Your task to perform on an android device: toggle translation in the chrome app Image 0: 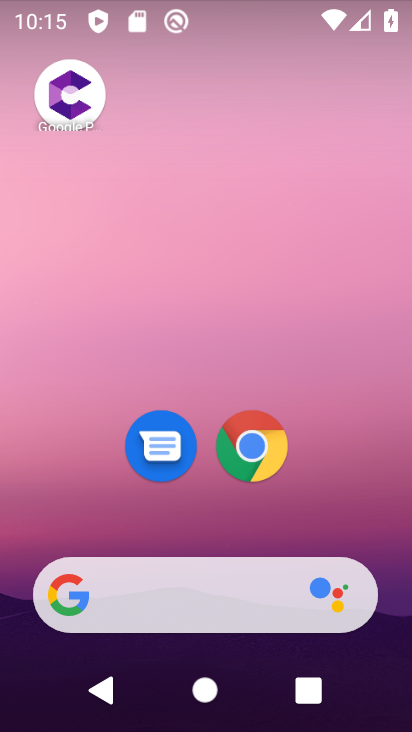
Step 0: click (248, 428)
Your task to perform on an android device: toggle translation in the chrome app Image 1: 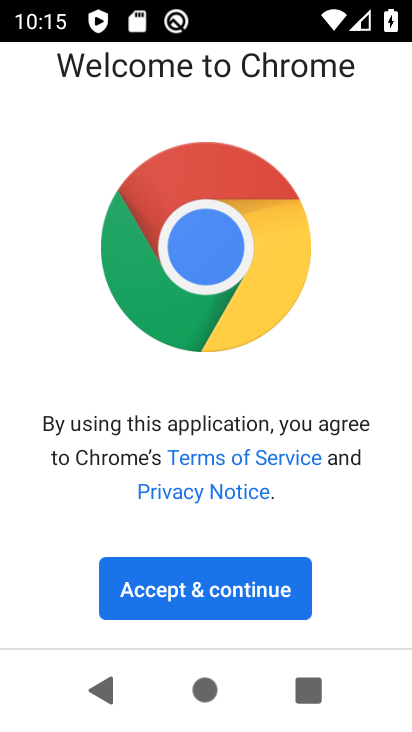
Step 1: click (241, 596)
Your task to perform on an android device: toggle translation in the chrome app Image 2: 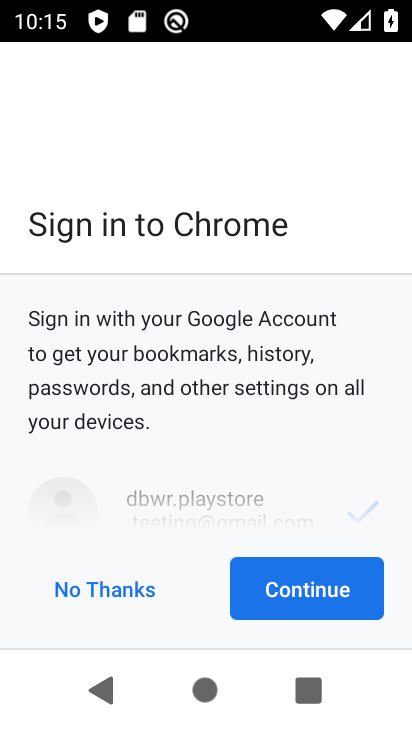
Step 2: click (368, 575)
Your task to perform on an android device: toggle translation in the chrome app Image 3: 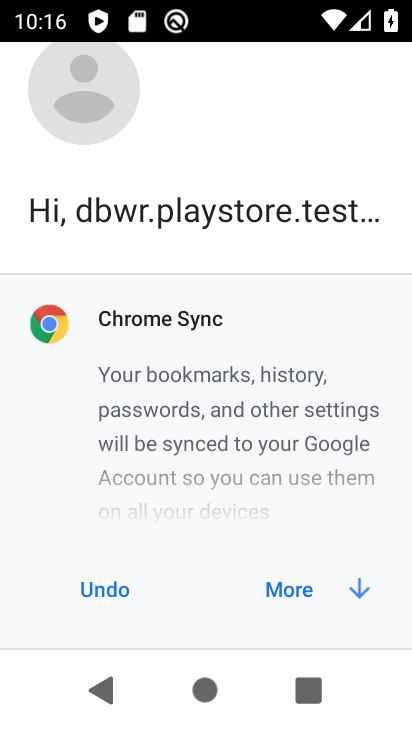
Step 3: click (305, 600)
Your task to perform on an android device: toggle translation in the chrome app Image 4: 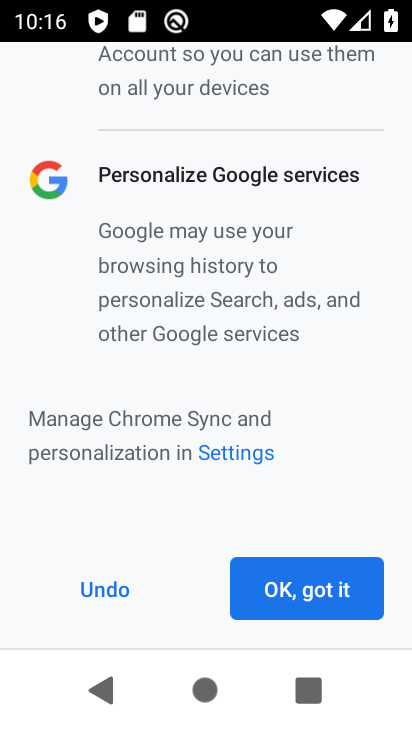
Step 4: click (293, 594)
Your task to perform on an android device: toggle translation in the chrome app Image 5: 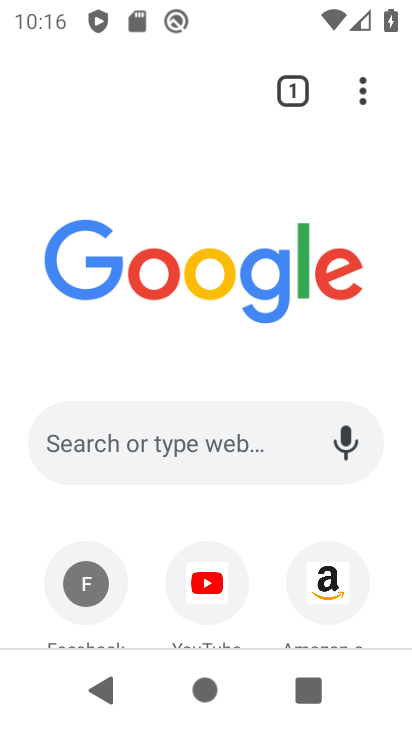
Step 5: click (364, 96)
Your task to perform on an android device: toggle translation in the chrome app Image 6: 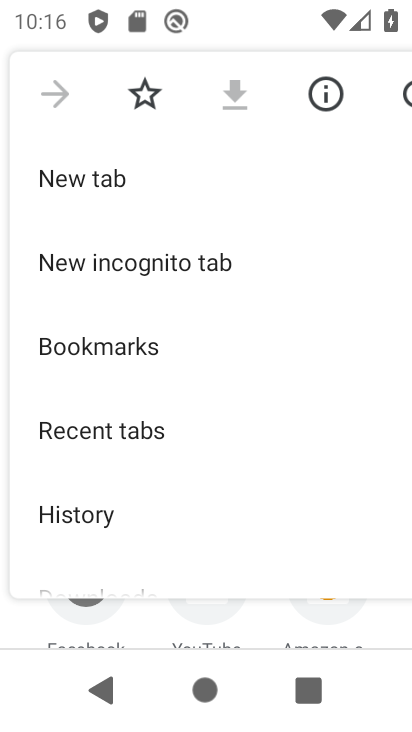
Step 6: drag from (100, 482) to (163, 260)
Your task to perform on an android device: toggle translation in the chrome app Image 7: 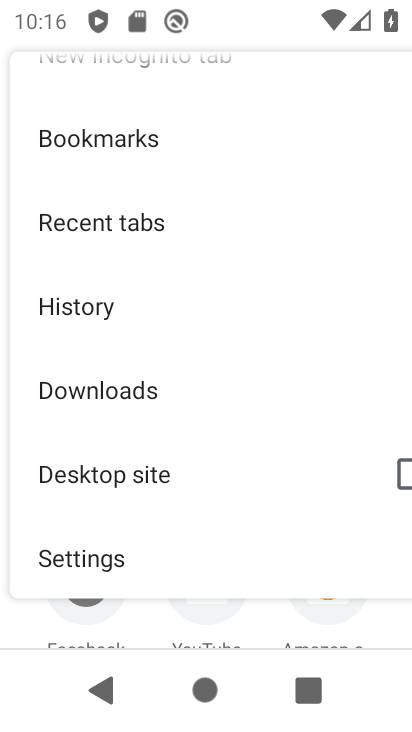
Step 7: drag from (90, 529) to (120, 421)
Your task to perform on an android device: toggle translation in the chrome app Image 8: 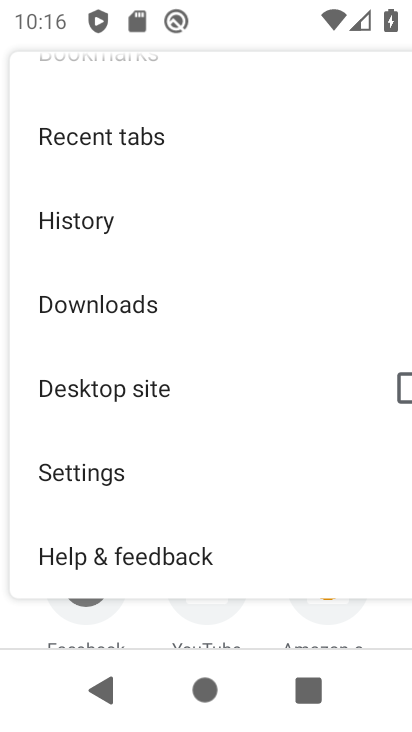
Step 8: click (96, 468)
Your task to perform on an android device: toggle translation in the chrome app Image 9: 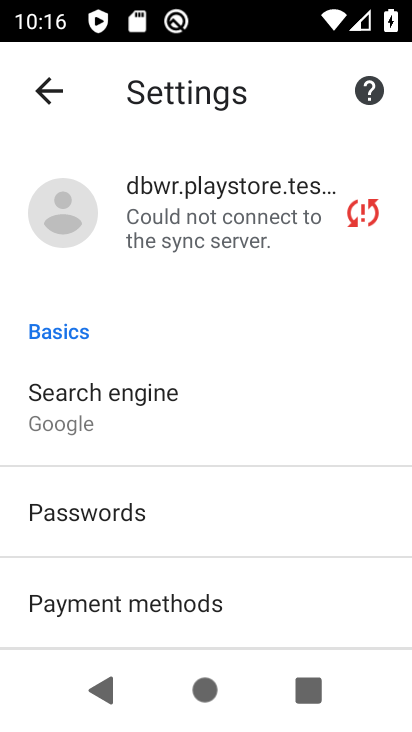
Step 9: drag from (173, 512) to (230, 303)
Your task to perform on an android device: toggle translation in the chrome app Image 10: 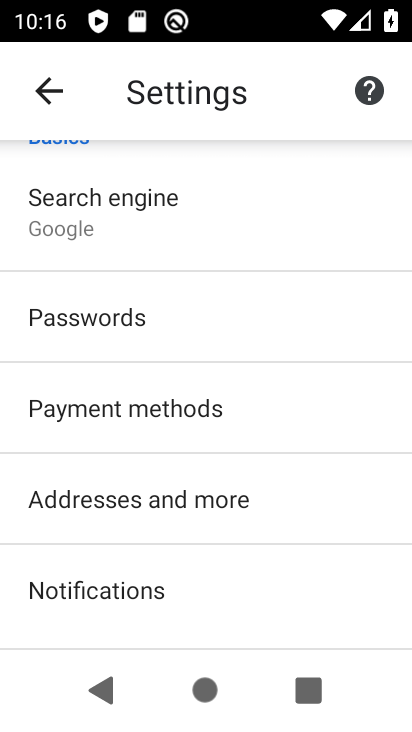
Step 10: drag from (135, 573) to (216, 329)
Your task to perform on an android device: toggle translation in the chrome app Image 11: 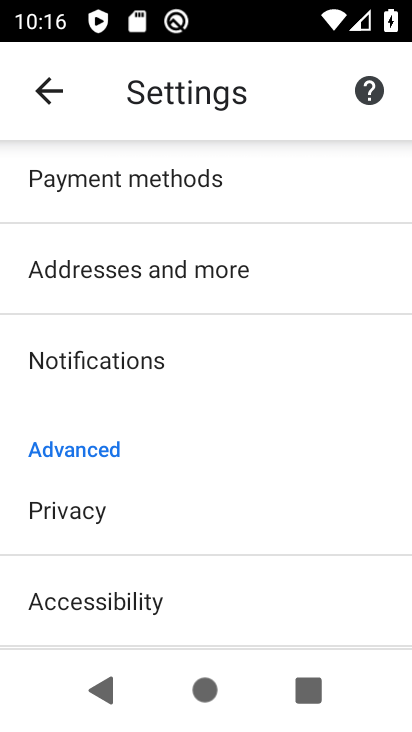
Step 11: drag from (113, 593) to (139, 453)
Your task to perform on an android device: toggle translation in the chrome app Image 12: 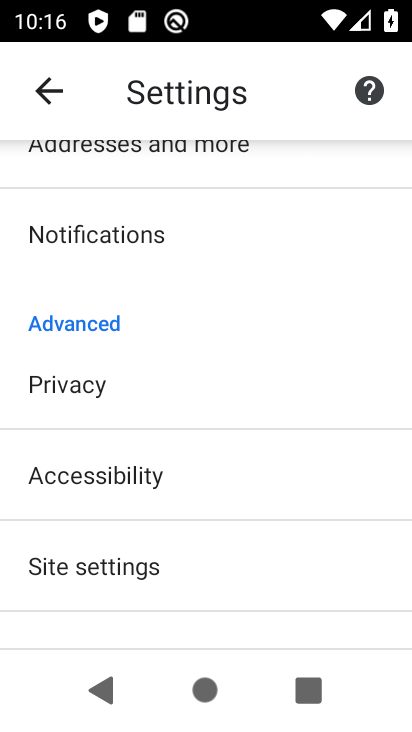
Step 12: drag from (147, 555) to (202, 333)
Your task to perform on an android device: toggle translation in the chrome app Image 13: 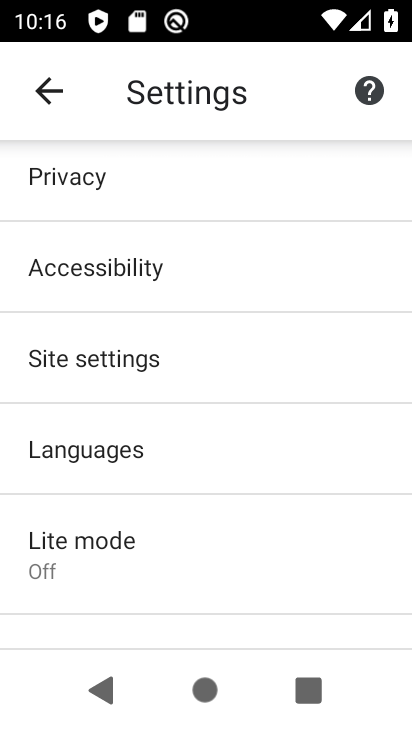
Step 13: click (133, 468)
Your task to perform on an android device: toggle translation in the chrome app Image 14: 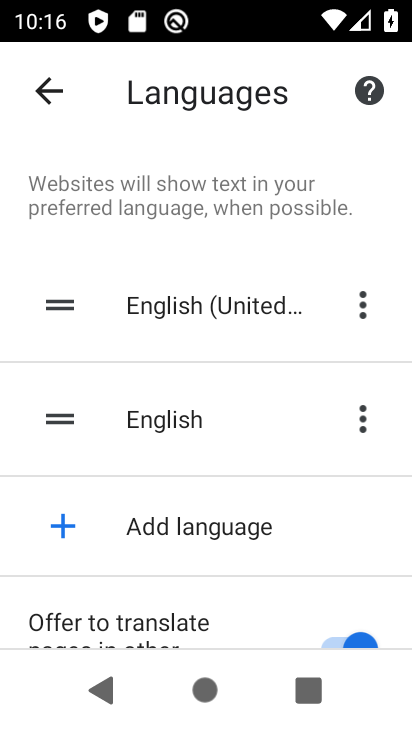
Step 14: drag from (150, 511) to (196, 324)
Your task to perform on an android device: toggle translation in the chrome app Image 15: 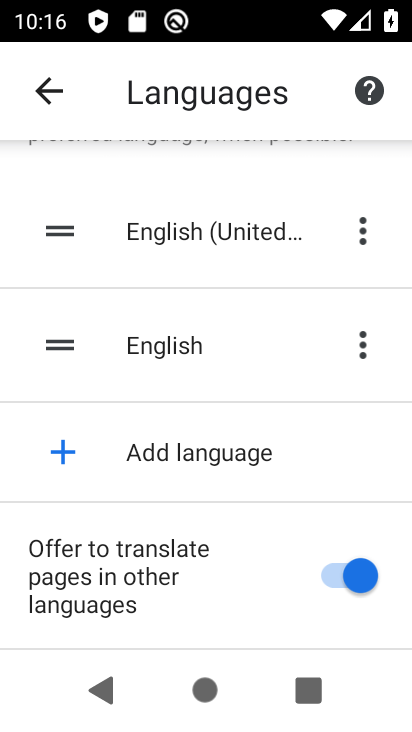
Step 15: click (327, 588)
Your task to perform on an android device: toggle translation in the chrome app Image 16: 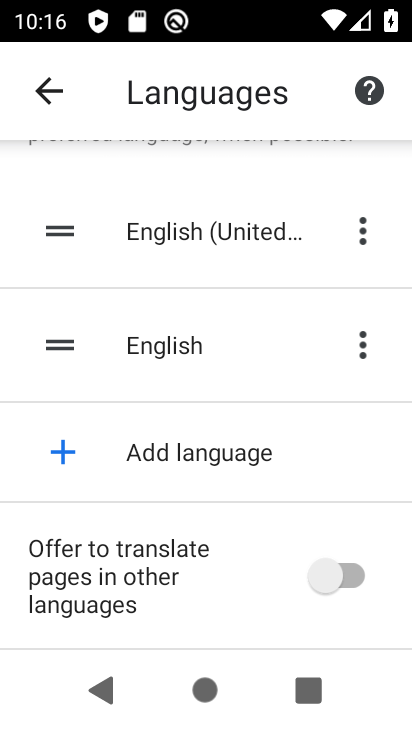
Step 16: task complete